Your task to perform on an android device: Is it going to rain today? Image 0: 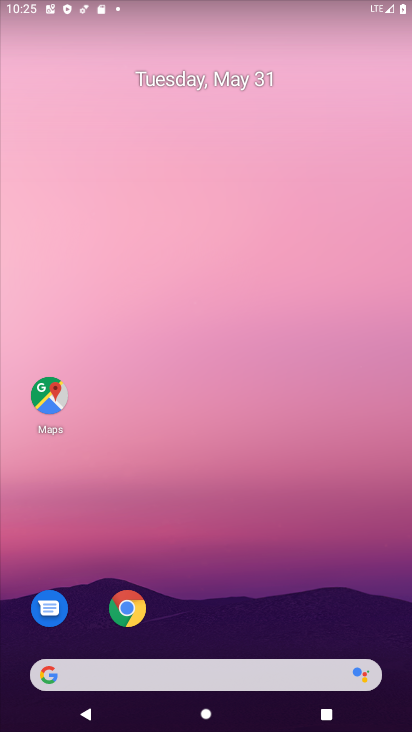
Step 0: drag from (205, 651) to (248, 80)
Your task to perform on an android device: Is it going to rain today? Image 1: 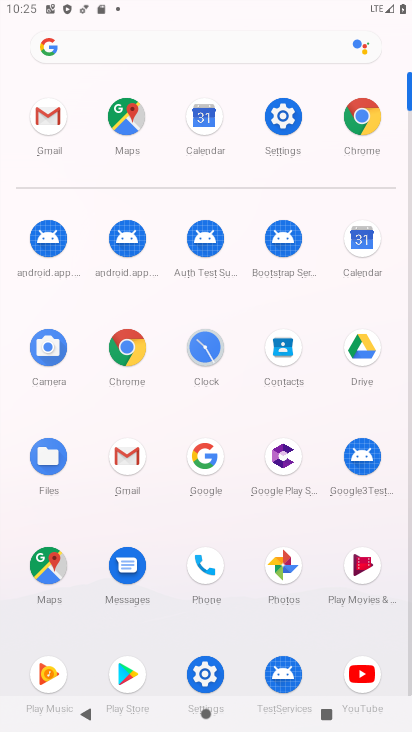
Step 1: click (194, 461)
Your task to perform on an android device: Is it going to rain today? Image 2: 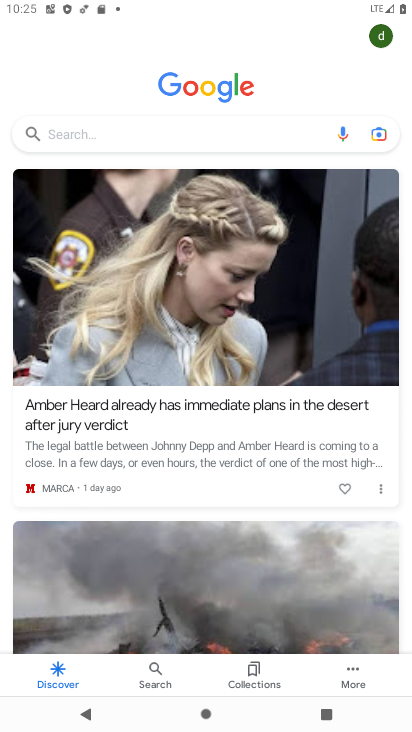
Step 2: click (155, 124)
Your task to perform on an android device: Is it going to rain today? Image 3: 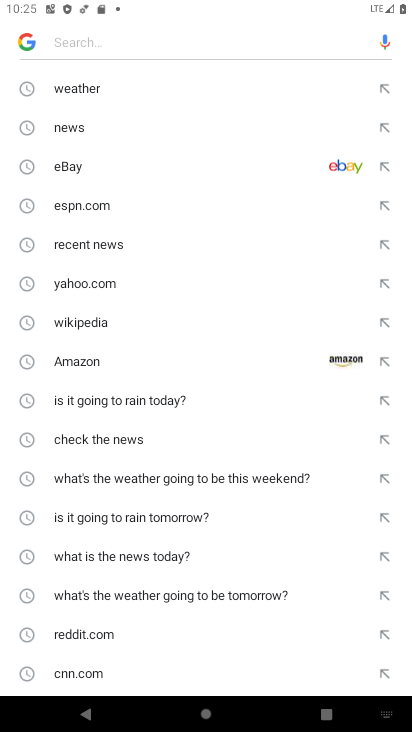
Step 3: click (97, 93)
Your task to perform on an android device: Is it going to rain today? Image 4: 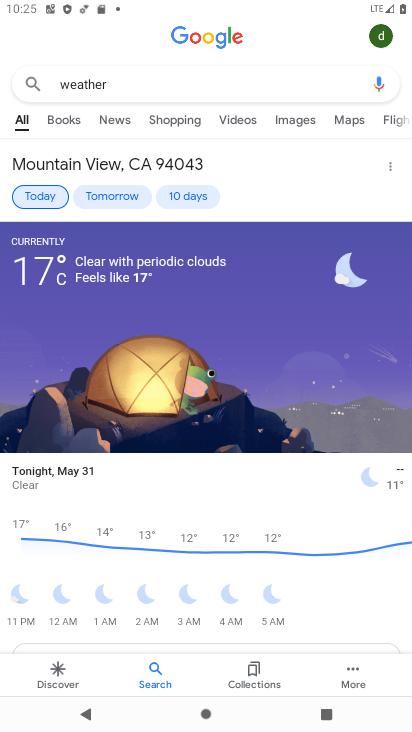
Step 4: click (46, 194)
Your task to perform on an android device: Is it going to rain today? Image 5: 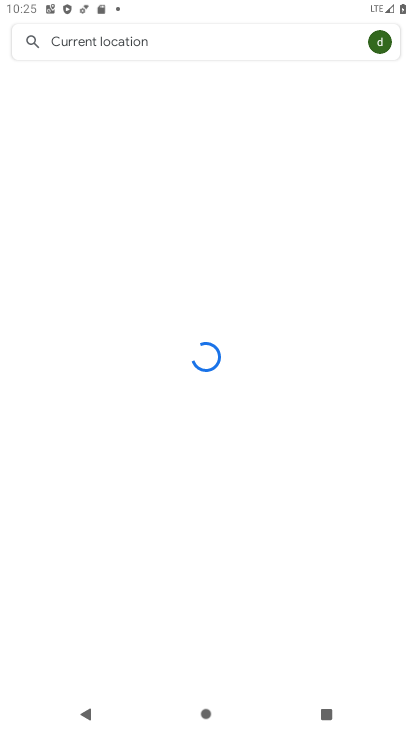
Step 5: task complete